Your task to perform on an android device: delete location history Image 0: 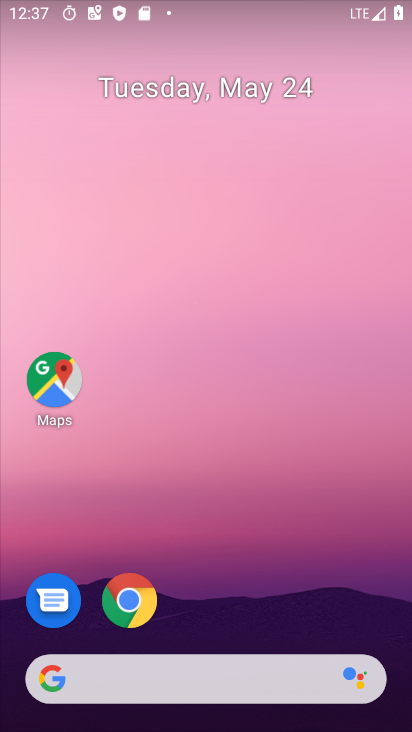
Step 0: drag from (253, 511) to (225, 83)
Your task to perform on an android device: delete location history Image 1: 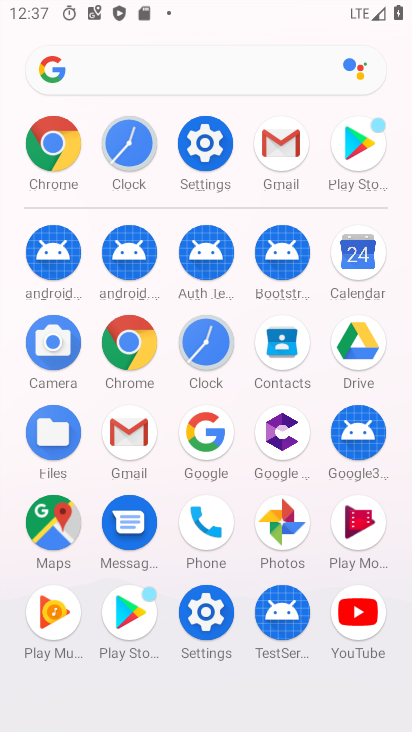
Step 1: click (212, 124)
Your task to perform on an android device: delete location history Image 2: 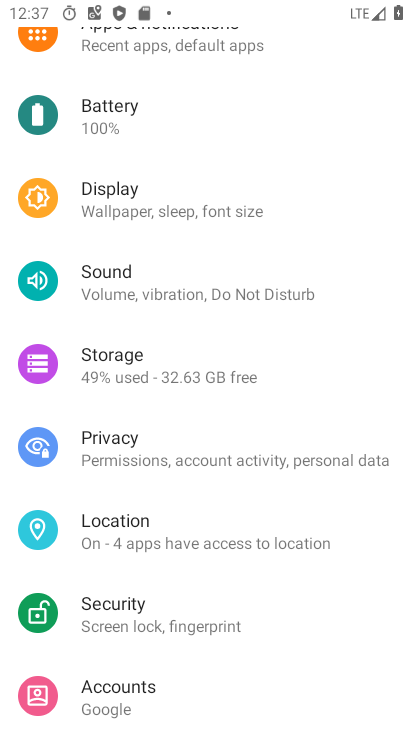
Step 2: drag from (198, 143) to (253, 197)
Your task to perform on an android device: delete location history Image 3: 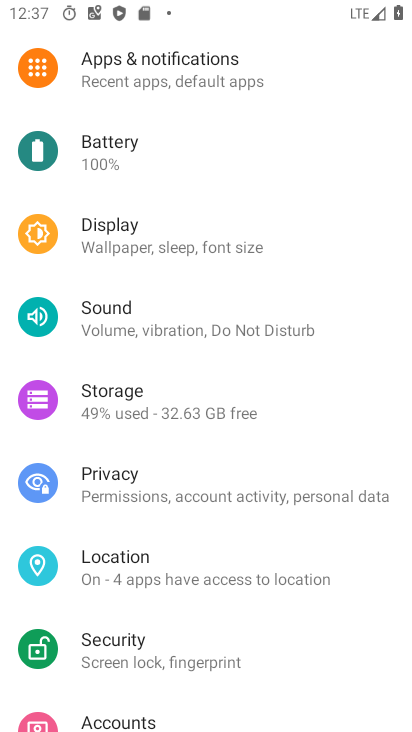
Step 3: drag from (186, 499) to (203, 273)
Your task to perform on an android device: delete location history Image 4: 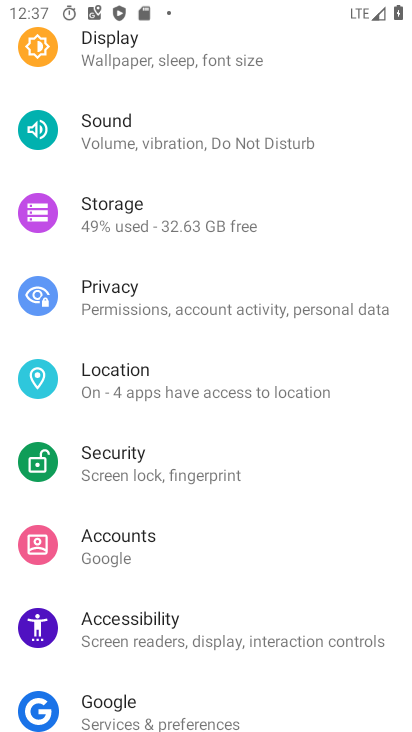
Step 4: click (152, 378)
Your task to perform on an android device: delete location history Image 5: 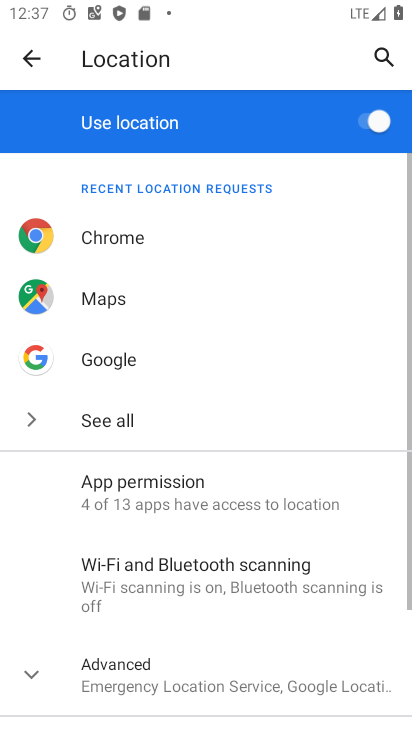
Step 5: drag from (186, 589) to (268, 245)
Your task to perform on an android device: delete location history Image 6: 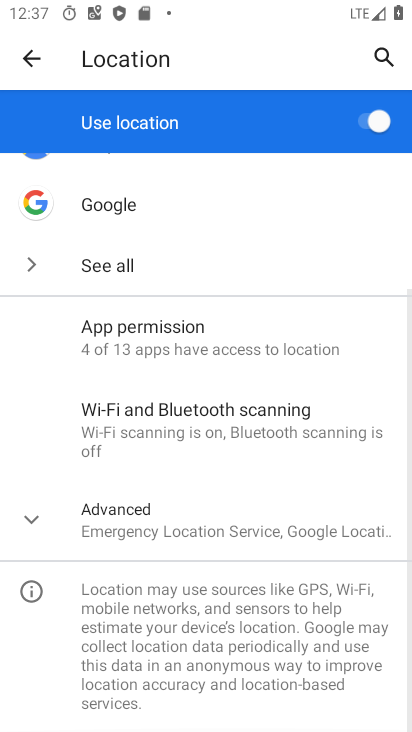
Step 6: click (126, 524)
Your task to perform on an android device: delete location history Image 7: 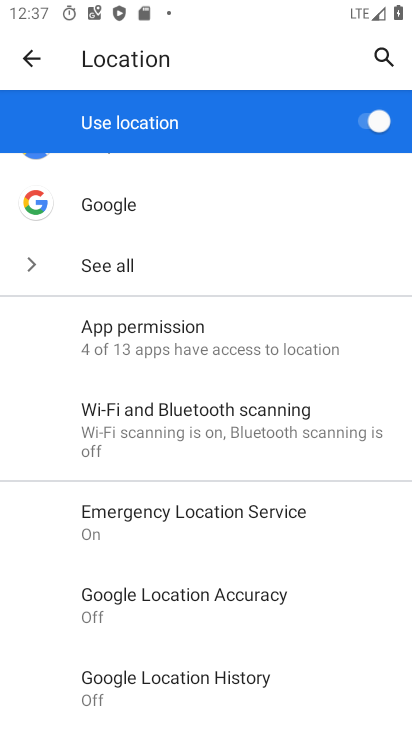
Step 7: click (218, 677)
Your task to perform on an android device: delete location history Image 8: 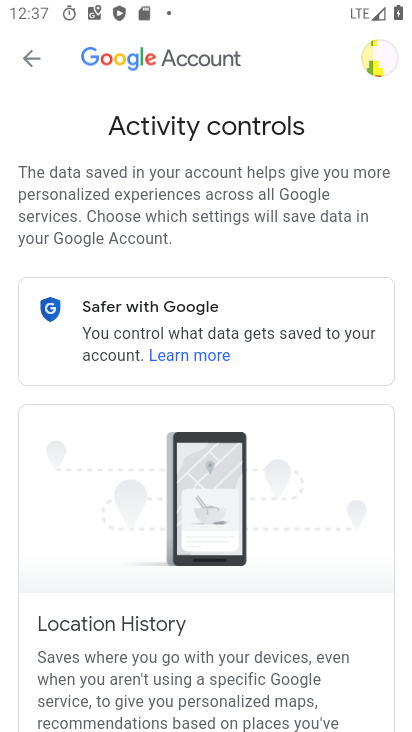
Step 8: drag from (343, 499) to (345, 61)
Your task to perform on an android device: delete location history Image 9: 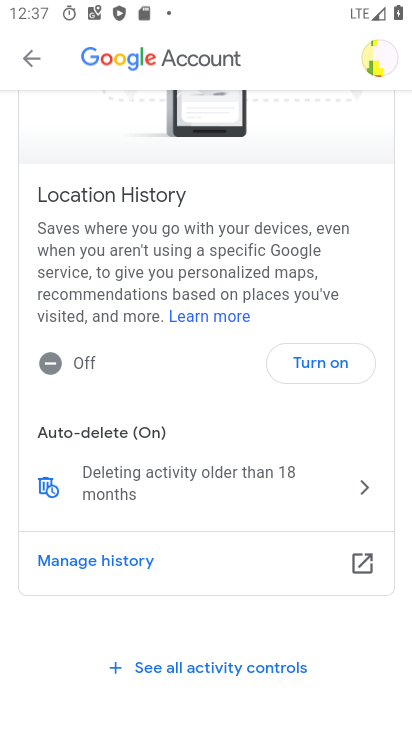
Step 9: drag from (269, 563) to (267, 440)
Your task to perform on an android device: delete location history Image 10: 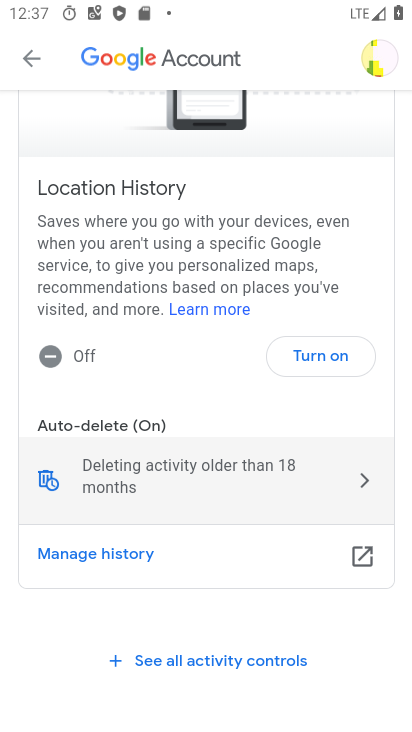
Step 10: click (361, 553)
Your task to perform on an android device: delete location history Image 11: 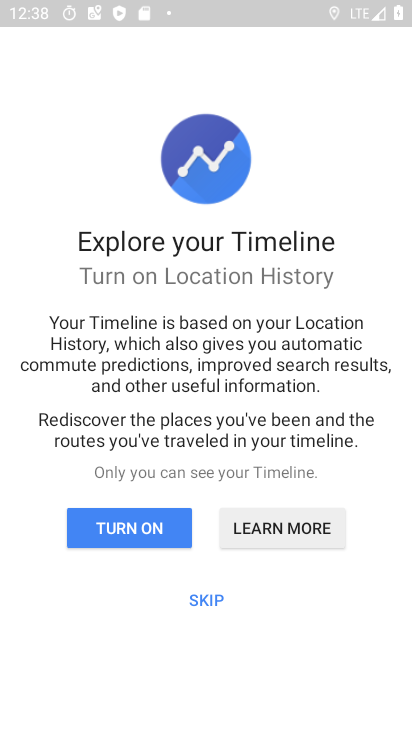
Step 11: click (207, 595)
Your task to perform on an android device: delete location history Image 12: 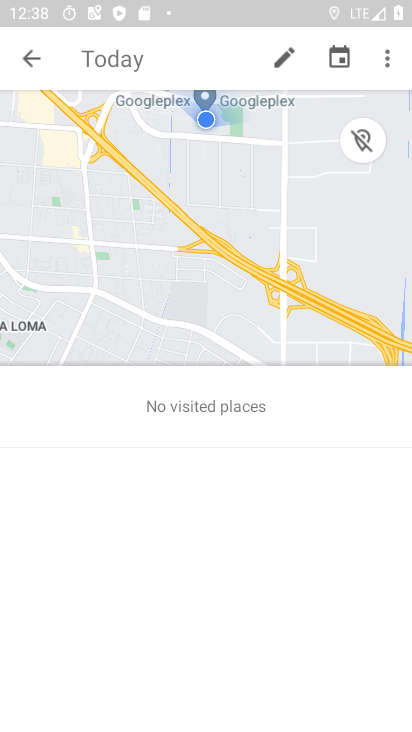
Step 12: click (39, 61)
Your task to perform on an android device: delete location history Image 13: 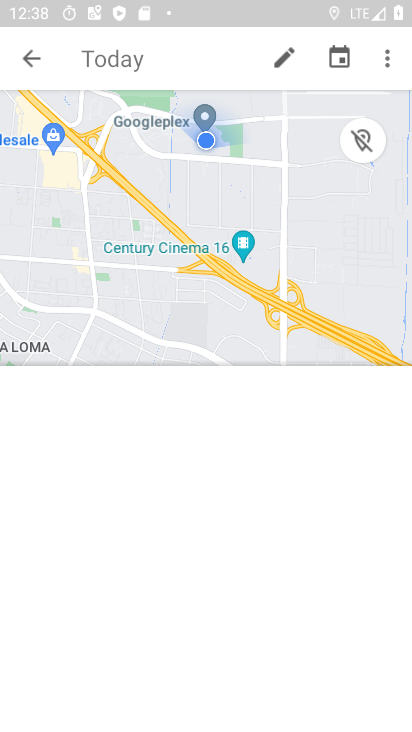
Step 13: click (39, 61)
Your task to perform on an android device: delete location history Image 14: 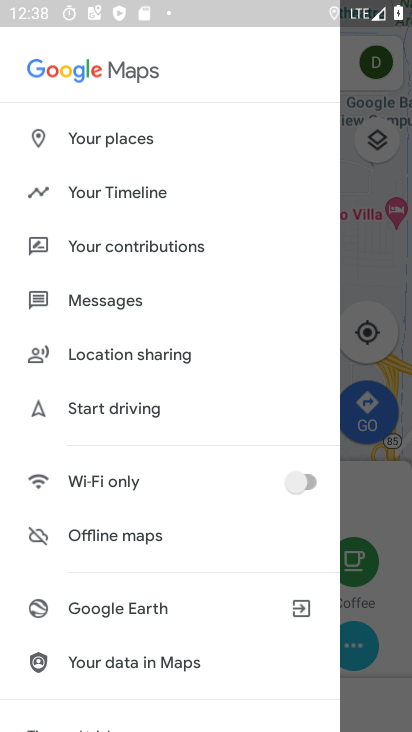
Step 14: drag from (169, 649) to (225, 223)
Your task to perform on an android device: delete location history Image 15: 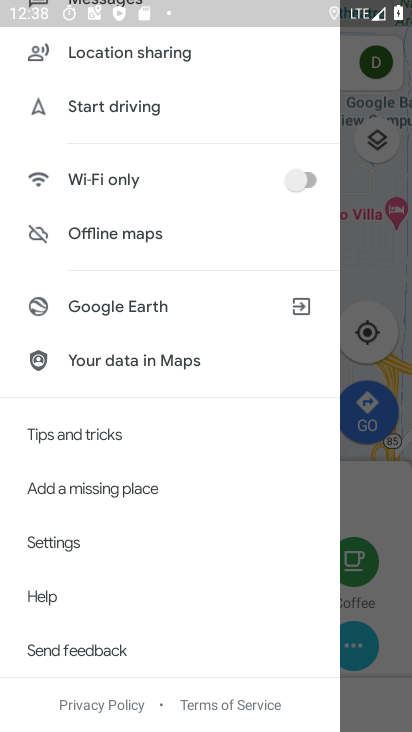
Step 15: click (63, 549)
Your task to perform on an android device: delete location history Image 16: 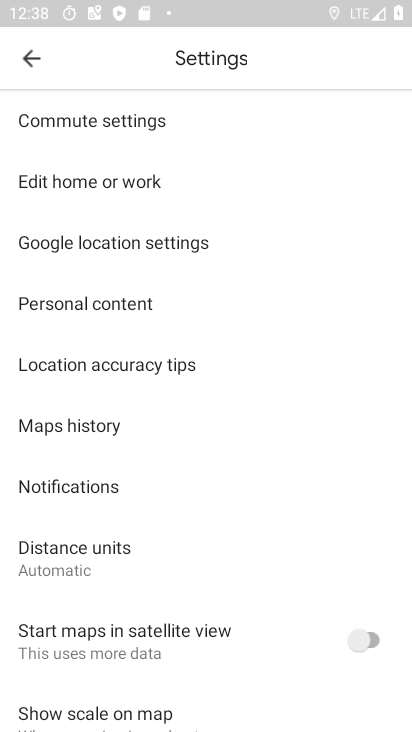
Step 16: click (118, 425)
Your task to perform on an android device: delete location history Image 17: 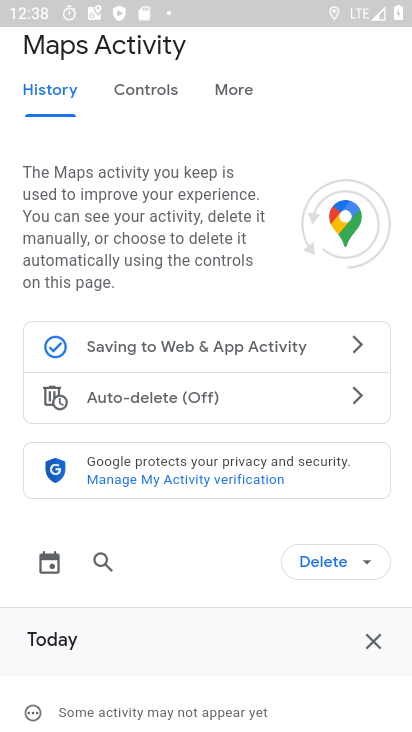
Step 17: click (381, 561)
Your task to perform on an android device: delete location history Image 18: 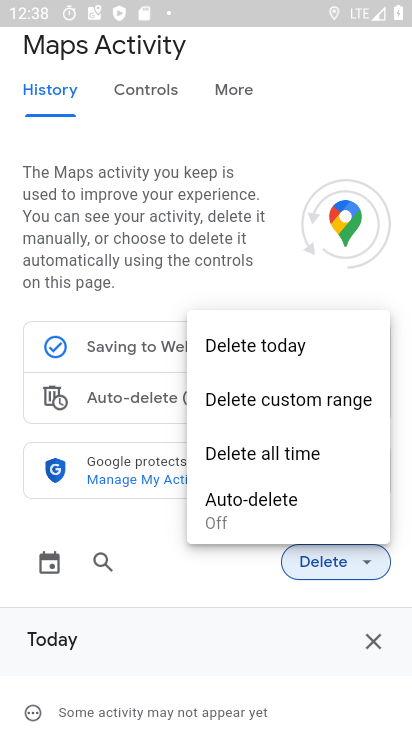
Step 18: click (372, 561)
Your task to perform on an android device: delete location history Image 19: 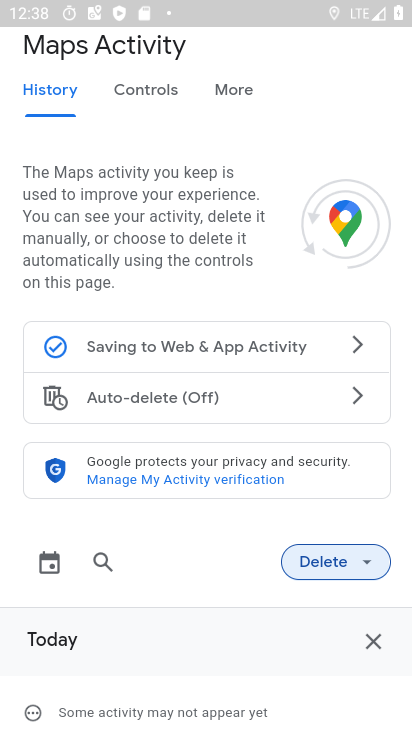
Step 19: click (362, 574)
Your task to perform on an android device: delete location history Image 20: 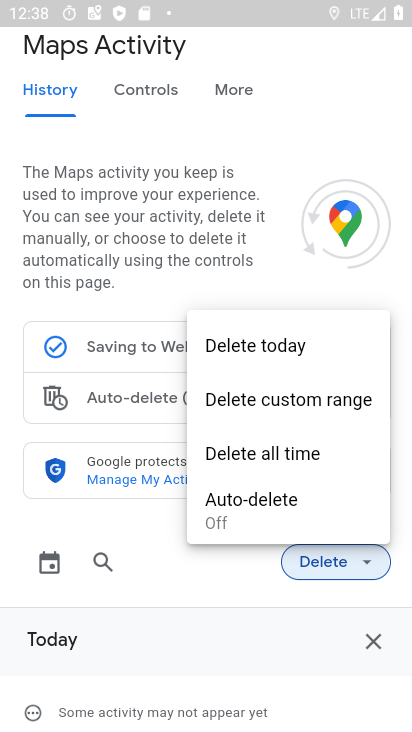
Step 20: click (315, 457)
Your task to perform on an android device: delete location history Image 21: 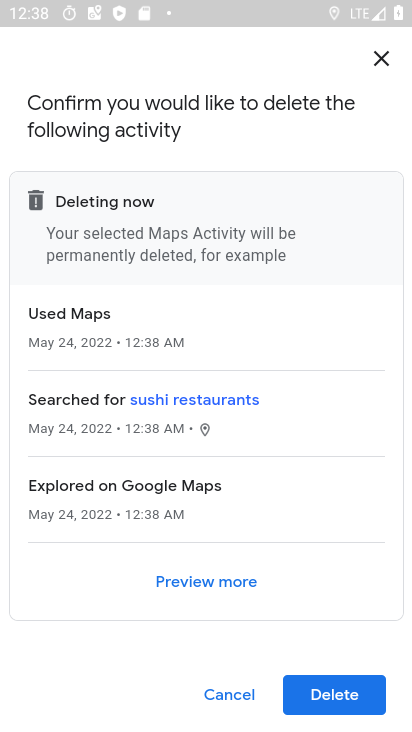
Step 21: click (344, 700)
Your task to perform on an android device: delete location history Image 22: 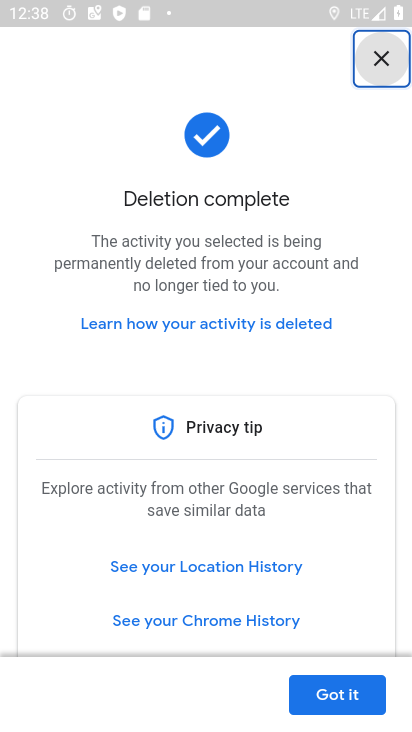
Step 22: task complete